Your task to perform on an android device: Open notification settings Image 0: 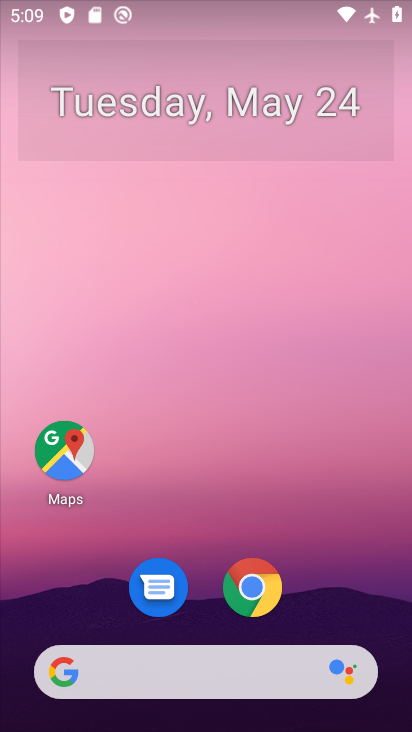
Step 0: drag from (332, 435) to (218, 35)
Your task to perform on an android device: Open notification settings Image 1: 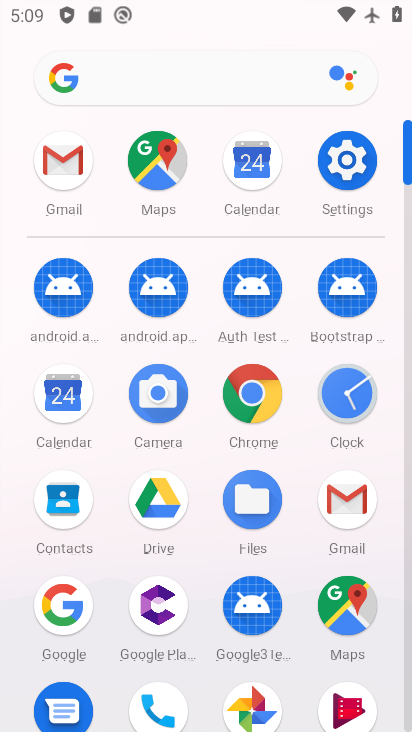
Step 1: click (345, 167)
Your task to perform on an android device: Open notification settings Image 2: 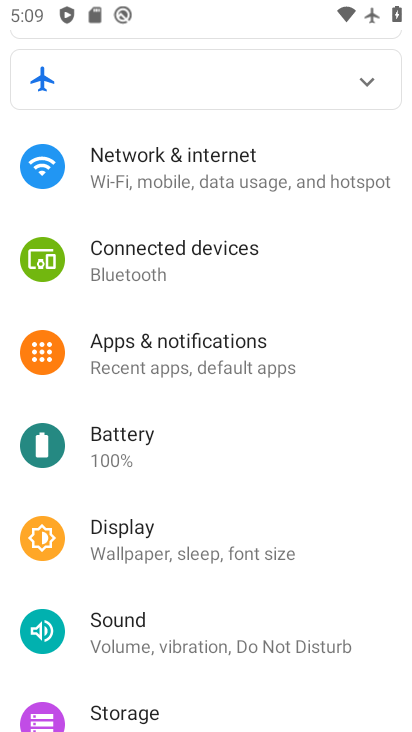
Step 2: click (234, 334)
Your task to perform on an android device: Open notification settings Image 3: 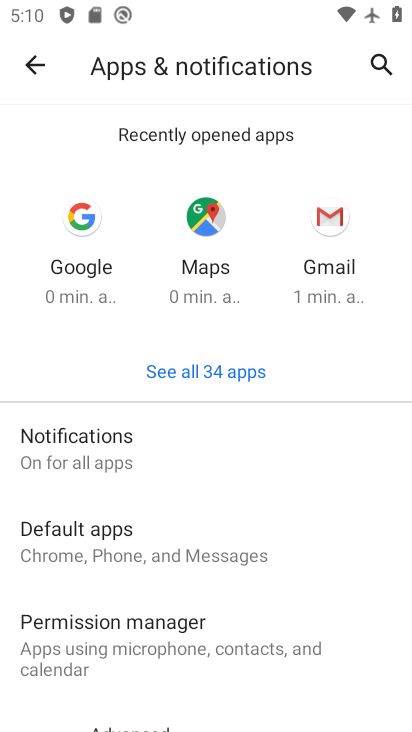
Step 3: task complete